Your task to perform on an android device: Open eBay Image 0: 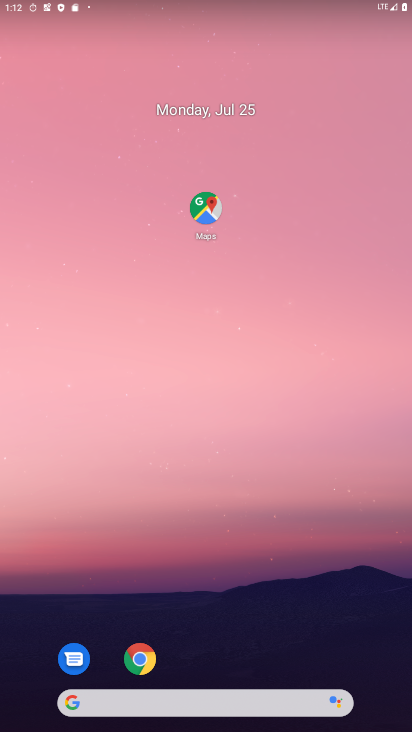
Step 0: click (94, 702)
Your task to perform on an android device: Open eBay Image 1: 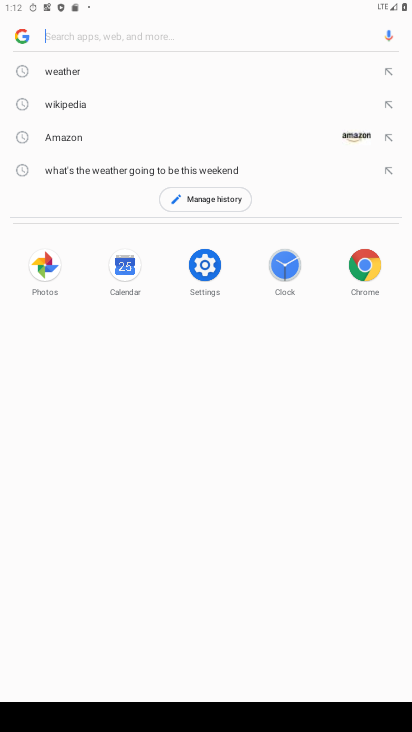
Step 1: type "eBay"
Your task to perform on an android device: Open eBay Image 2: 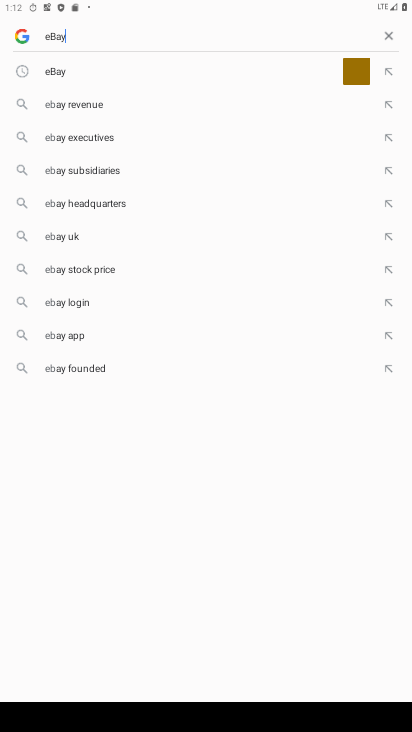
Step 2: type ""
Your task to perform on an android device: Open eBay Image 3: 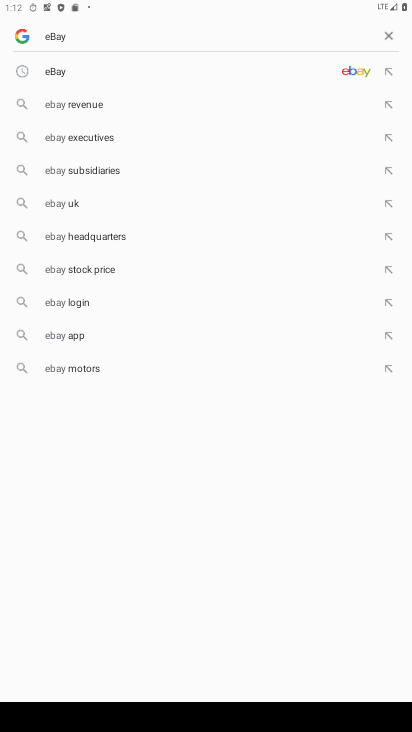
Step 3: click (47, 76)
Your task to perform on an android device: Open eBay Image 4: 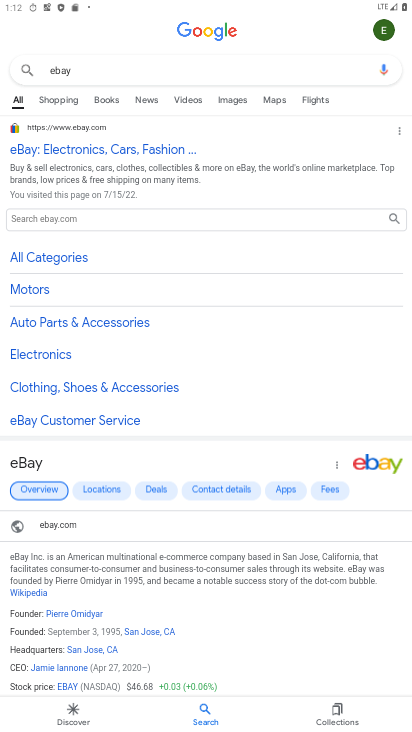
Step 4: task complete